Your task to perform on an android device: Search for sony triple a on newegg.com, select the first entry, add it to the cart, then select checkout. Image 0: 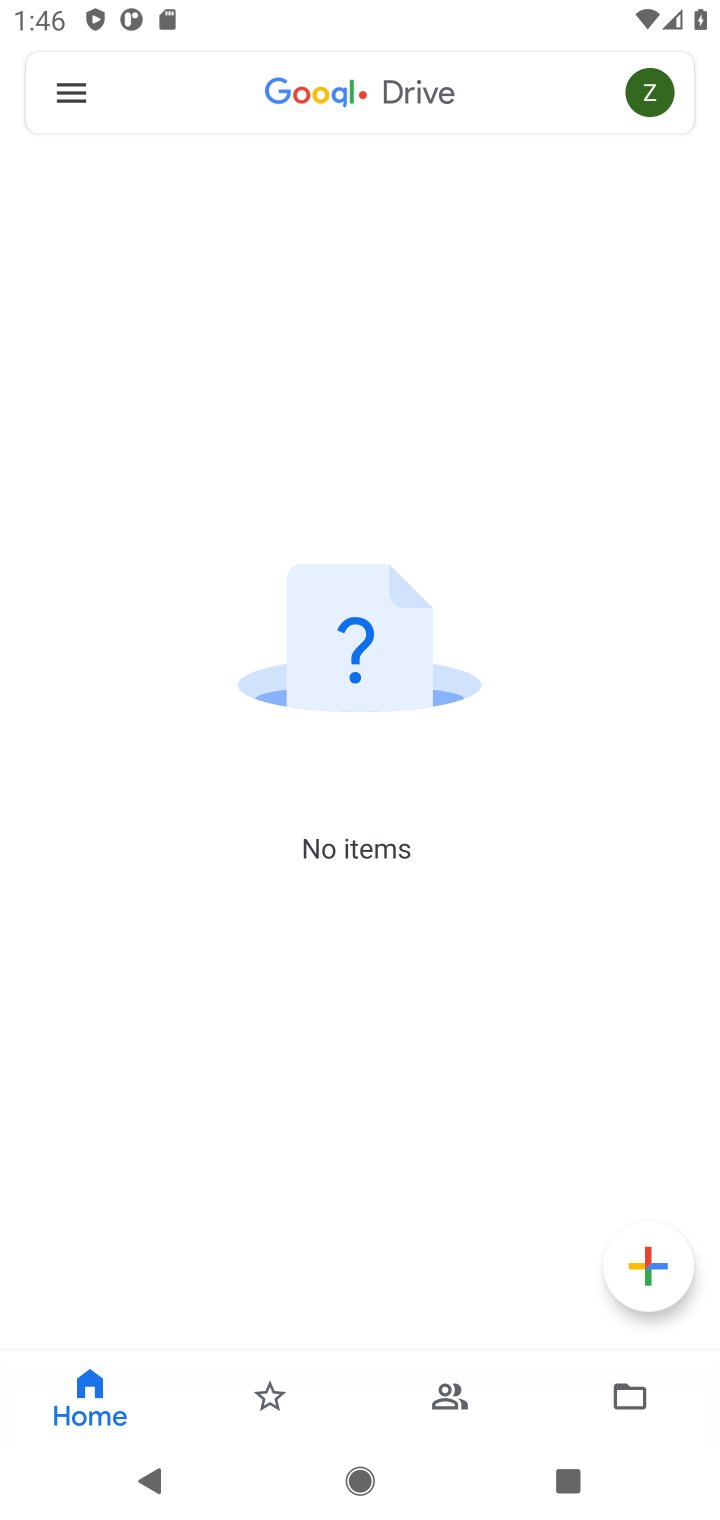
Step 0: press home button
Your task to perform on an android device: Search for sony triple a on newegg.com, select the first entry, add it to the cart, then select checkout. Image 1: 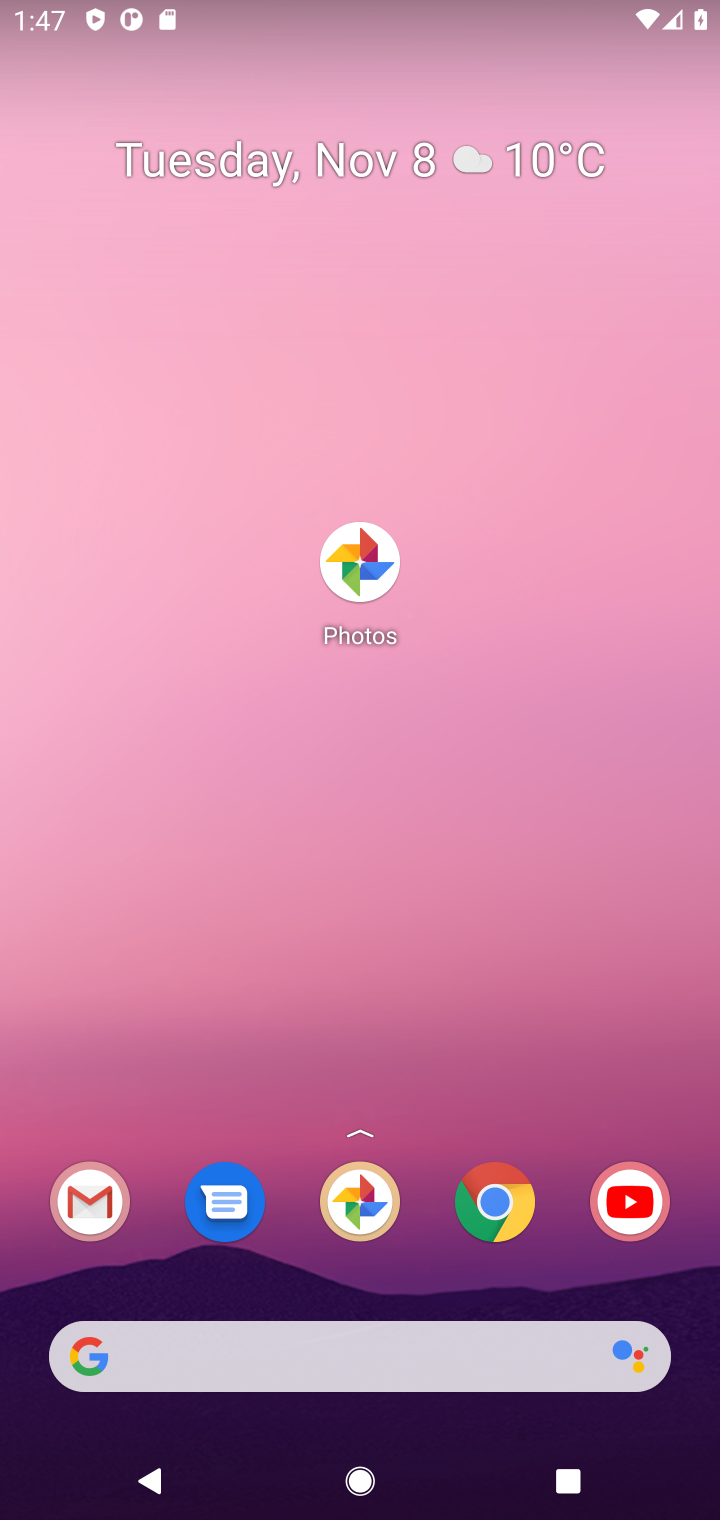
Step 1: drag from (485, 1242) to (467, 130)
Your task to perform on an android device: Search for sony triple a on newegg.com, select the first entry, add it to the cart, then select checkout. Image 2: 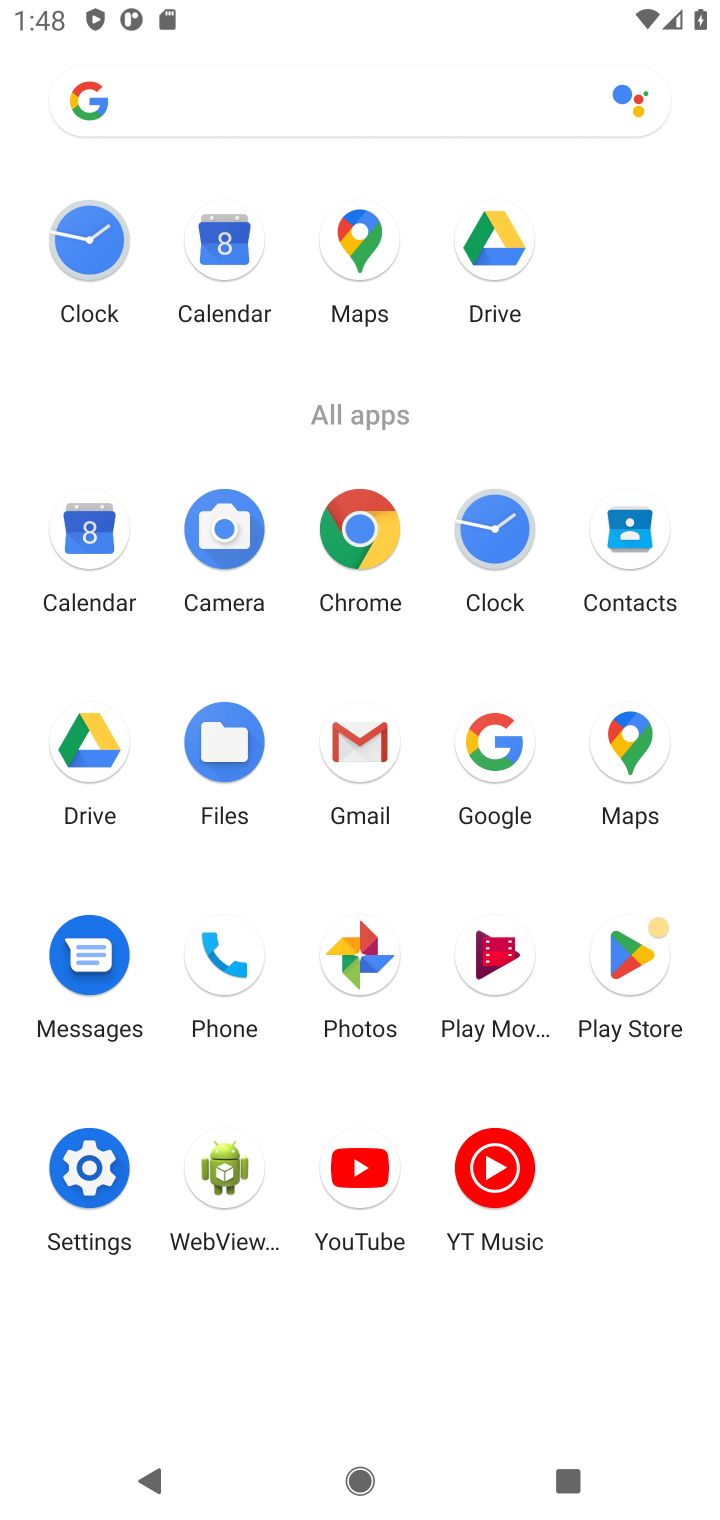
Step 2: click (498, 742)
Your task to perform on an android device: Search for sony triple a on newegg.com, select the first entry, add it to the cart, then select checkout. Image 3: 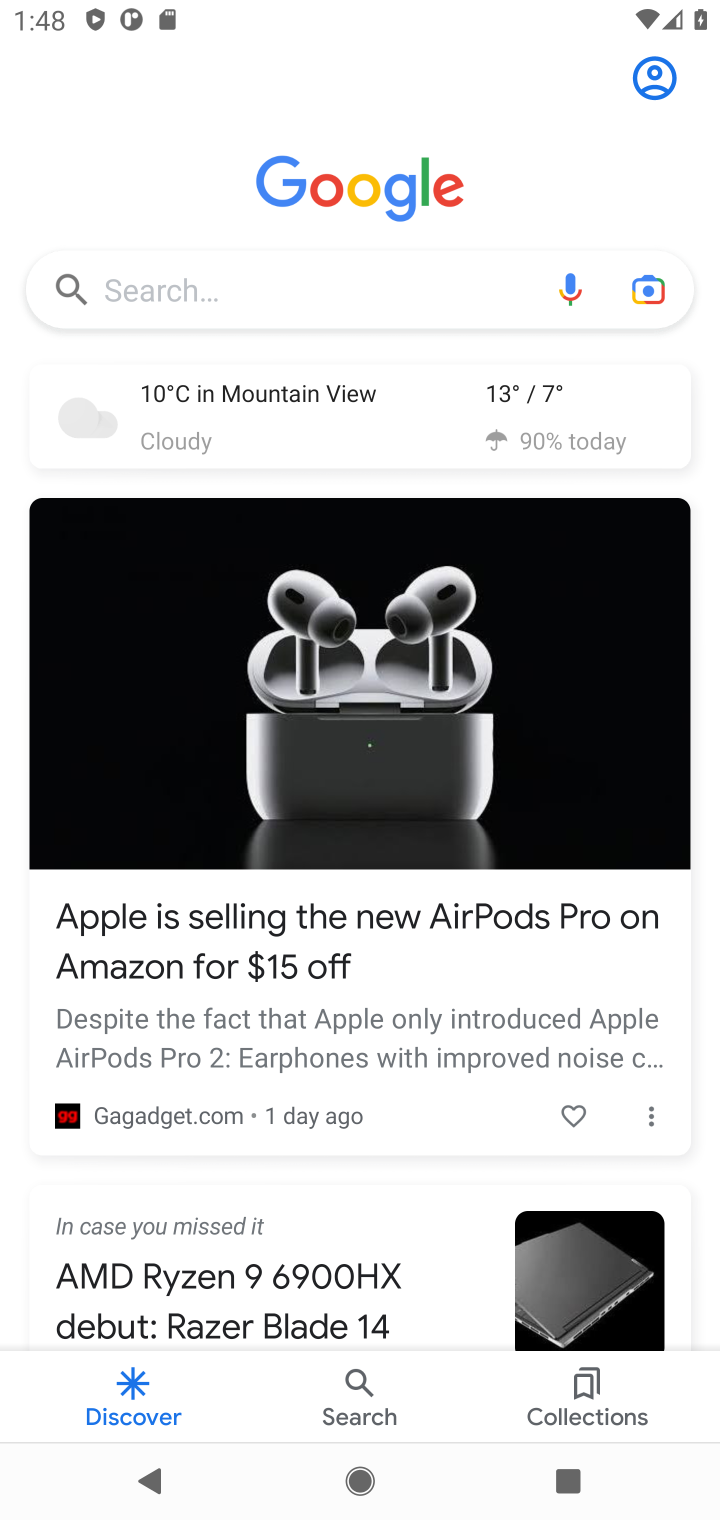
Step 3: click (288, 304)
Your task to perform on an android device: Search for sony triple a on newegg.com, select the first entry, add it to the cart, then select checkout. Image 4: 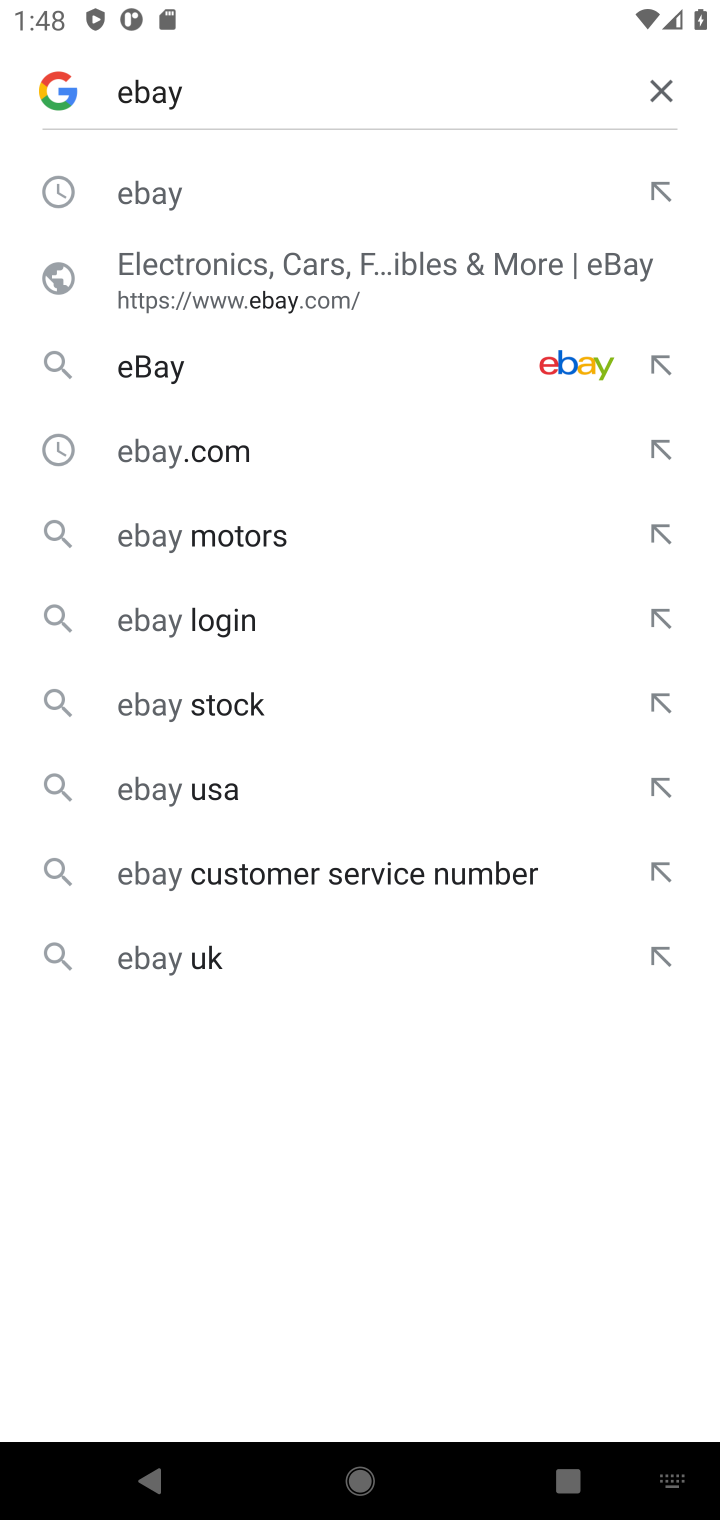
Step 4: click (661, 116)
Your task to perform on an android device: Search for sony triple a on newegg.com, select the first entry, add it to the cart, then select checkout. Image 5: 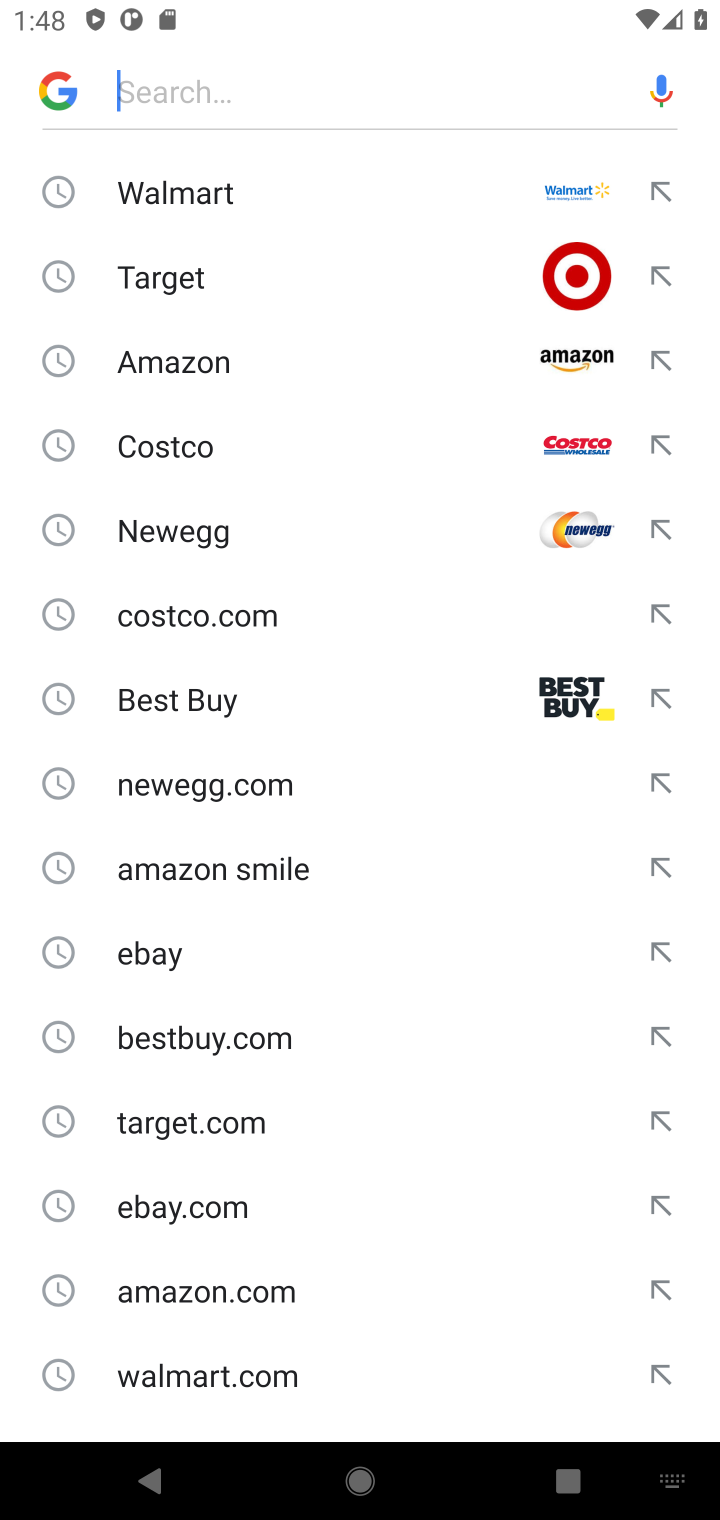
Step 5: type "newegg.com"
Your task to perform on an android device: Search for sony triple a on newegg.com, select the first entry, add it to the cart, then select checkout. Image 6: 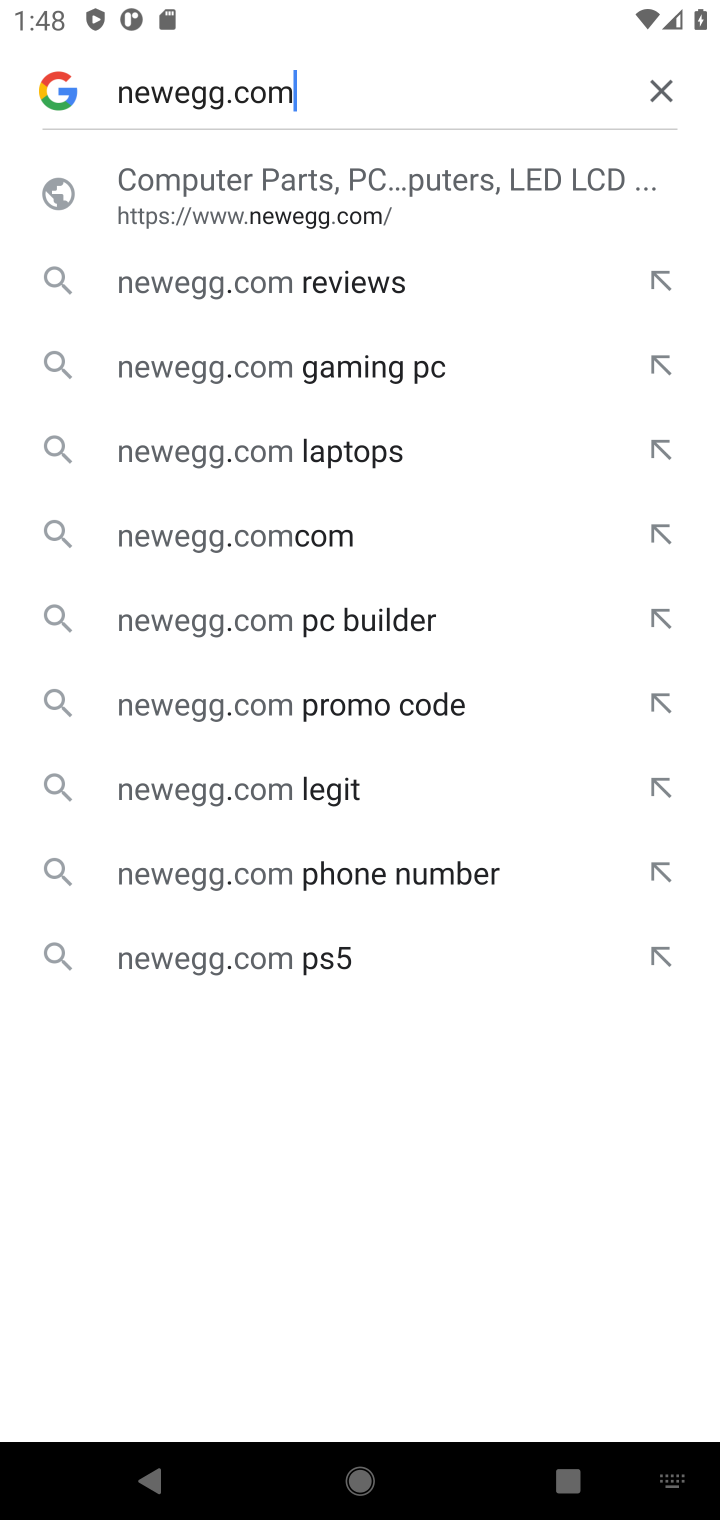
Step 6: click (458, 194)
Your task to perform on an android device: Search for sony triple a on newegg.com, select the first entry, add it to the cart, then select checkout. Image 7: 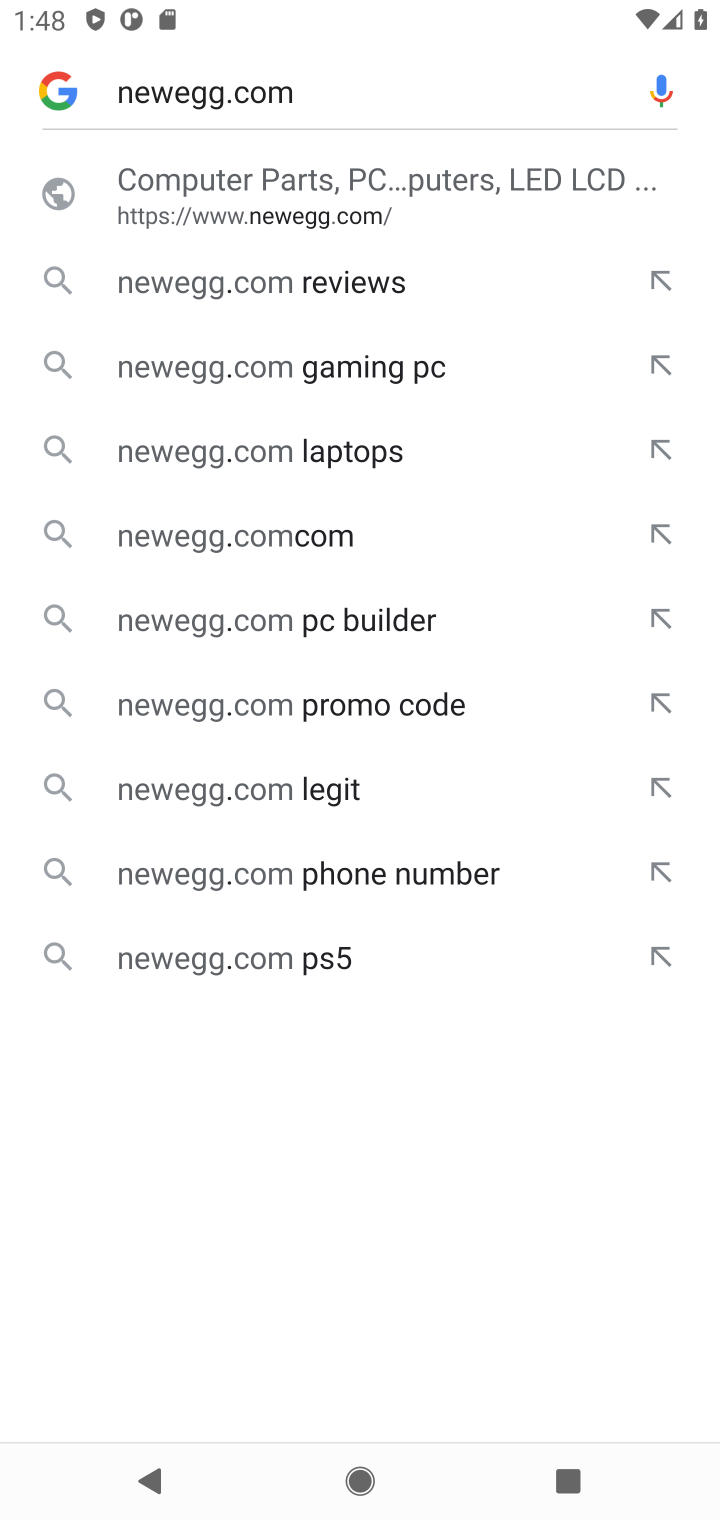
Step 7: click (458, 194)
Your task to perform on an android device: Search for sony triple a on newegg.com, select the first entry, add it to the cart, then select checkout. Image 8: 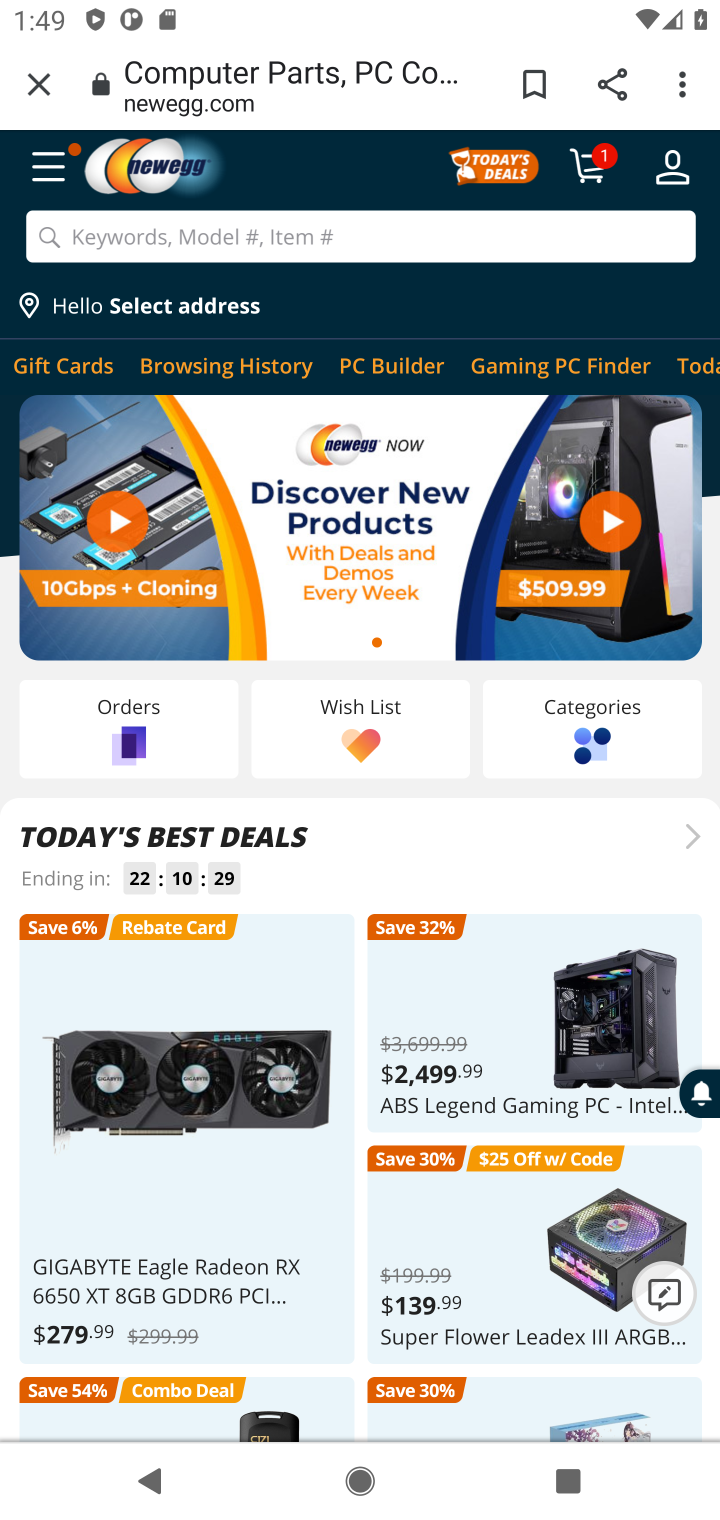
Step 8: click (149, 254)
Your task to perform on an android device: Search for sony triple a on newegg.com, select the first entry, add it to the cart, then select checkout. Image 9: 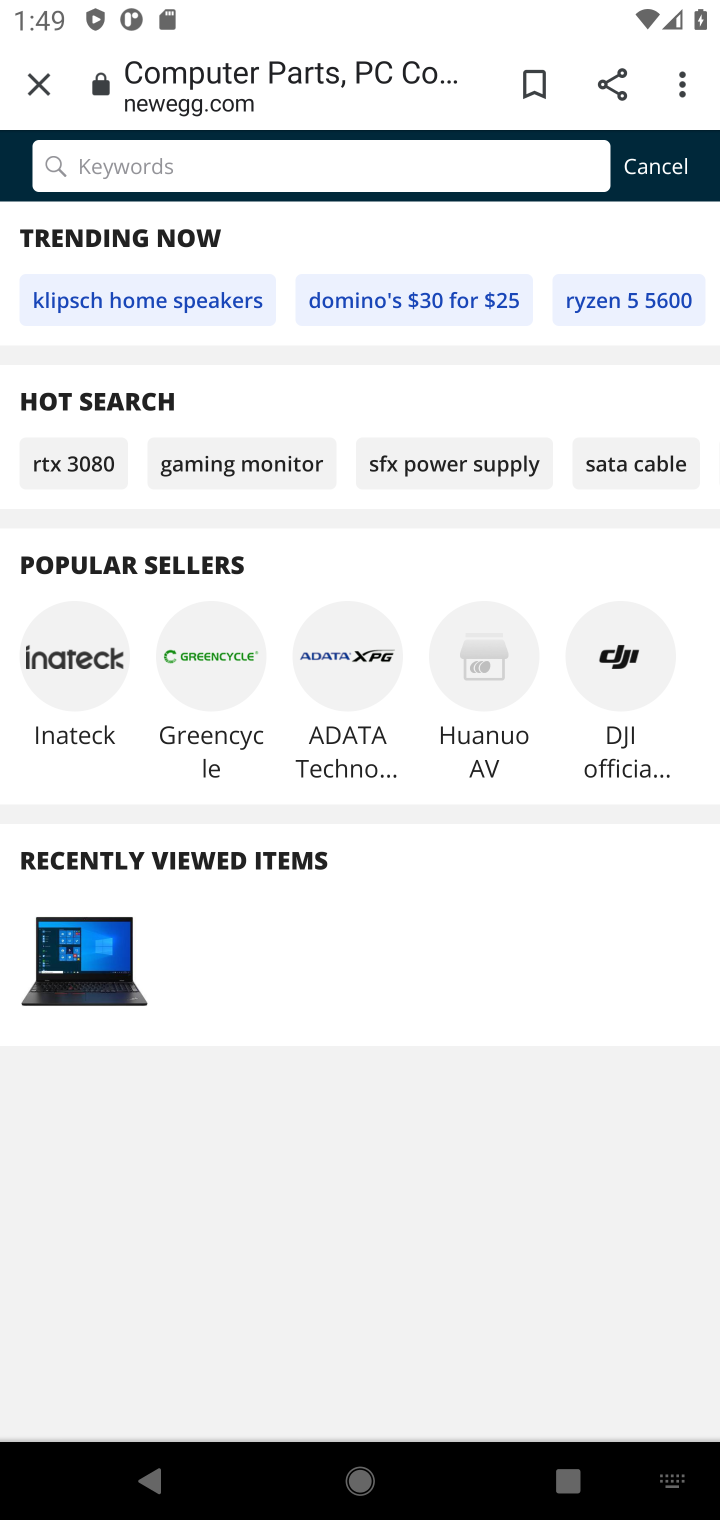
Step 9: type "sony triple A"
Your task to perform on an android device: Search for sony triple a on newegg.com, select the first entry, add it to the cart, then select checkout. Image 10: 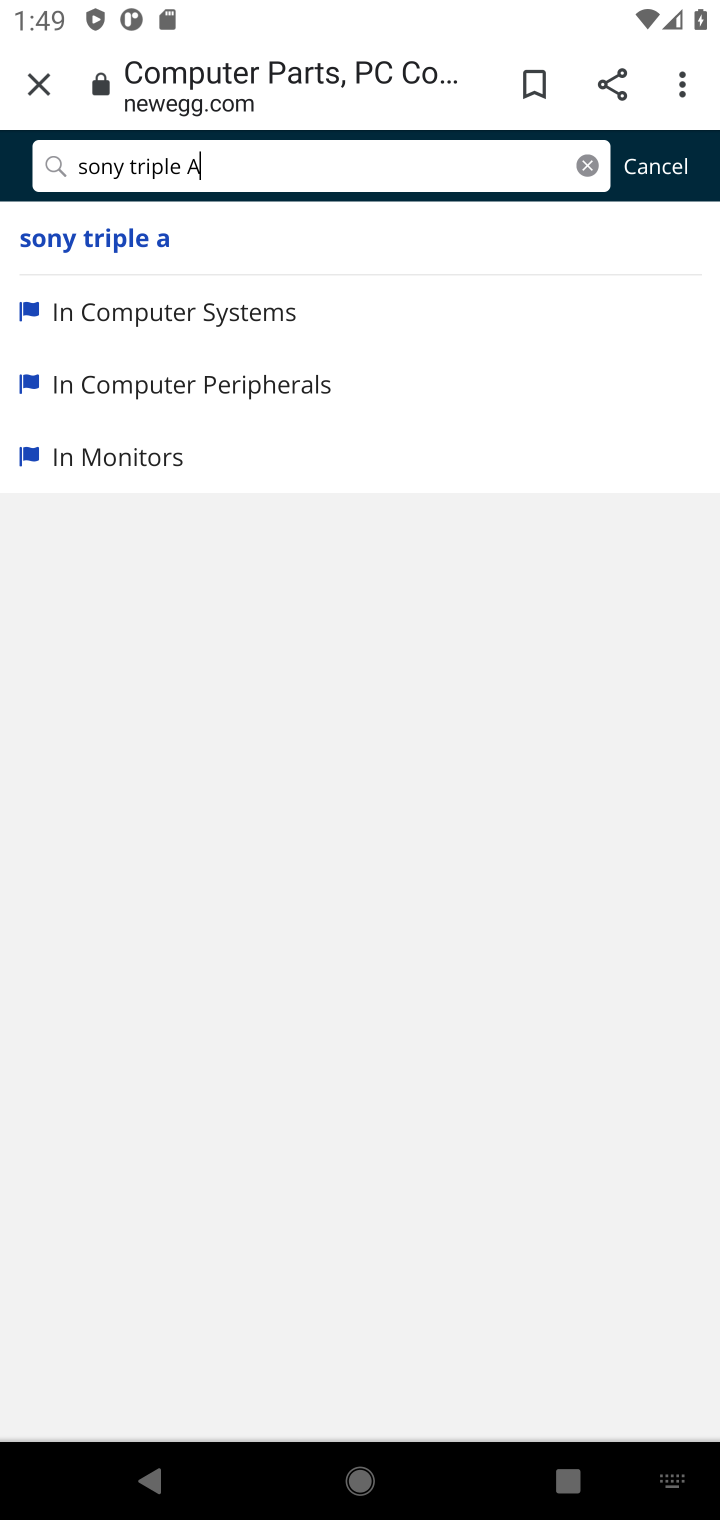
Step 10: click (268, 241)
Your task to perform on an android device: Search for sony triple a on newegg.com, select the first entry, add it to the cart, then select checkout. Image 11: 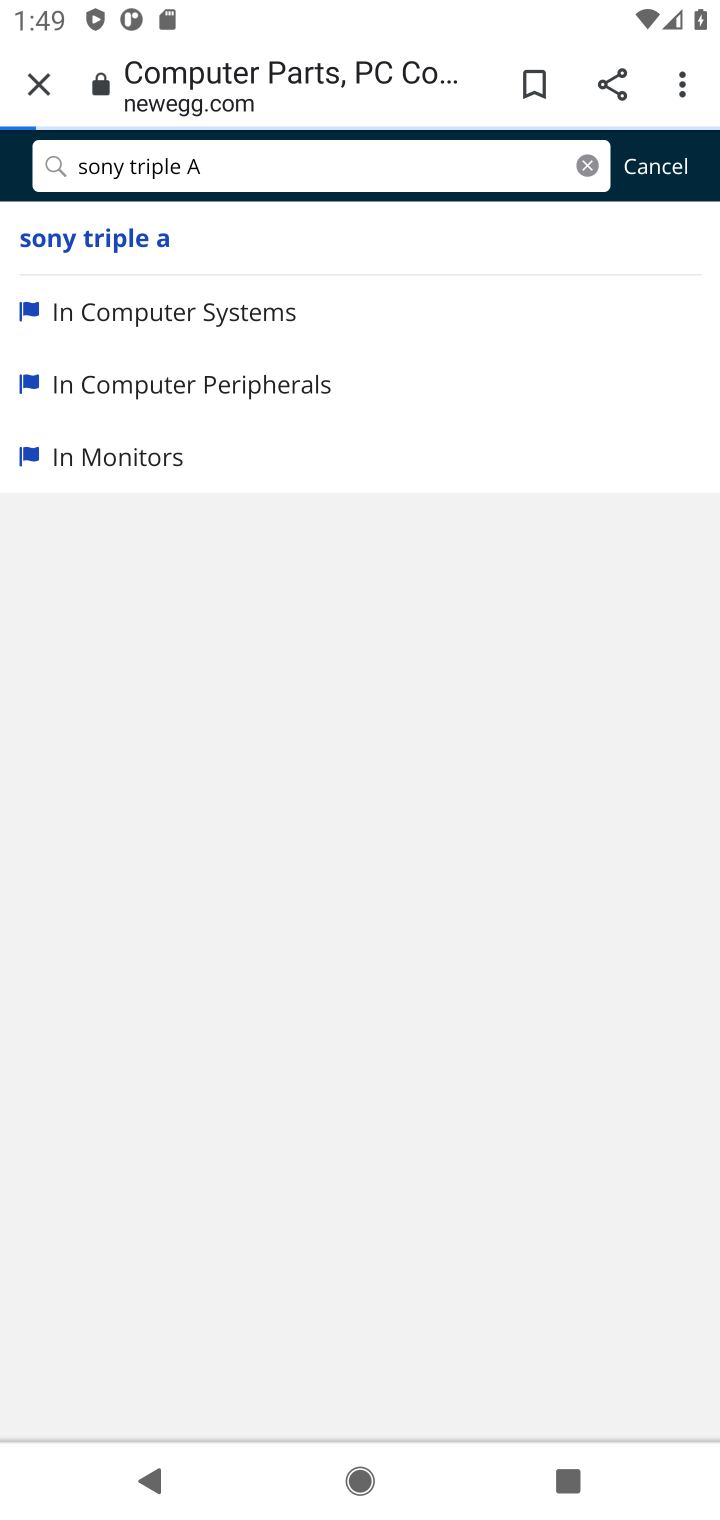
Step 11: click (137, 245)
Your task to perform on an android device: Search for sony triple a on newegg.com, select the first entry, add it to the cart, then select checkout. Image 12: 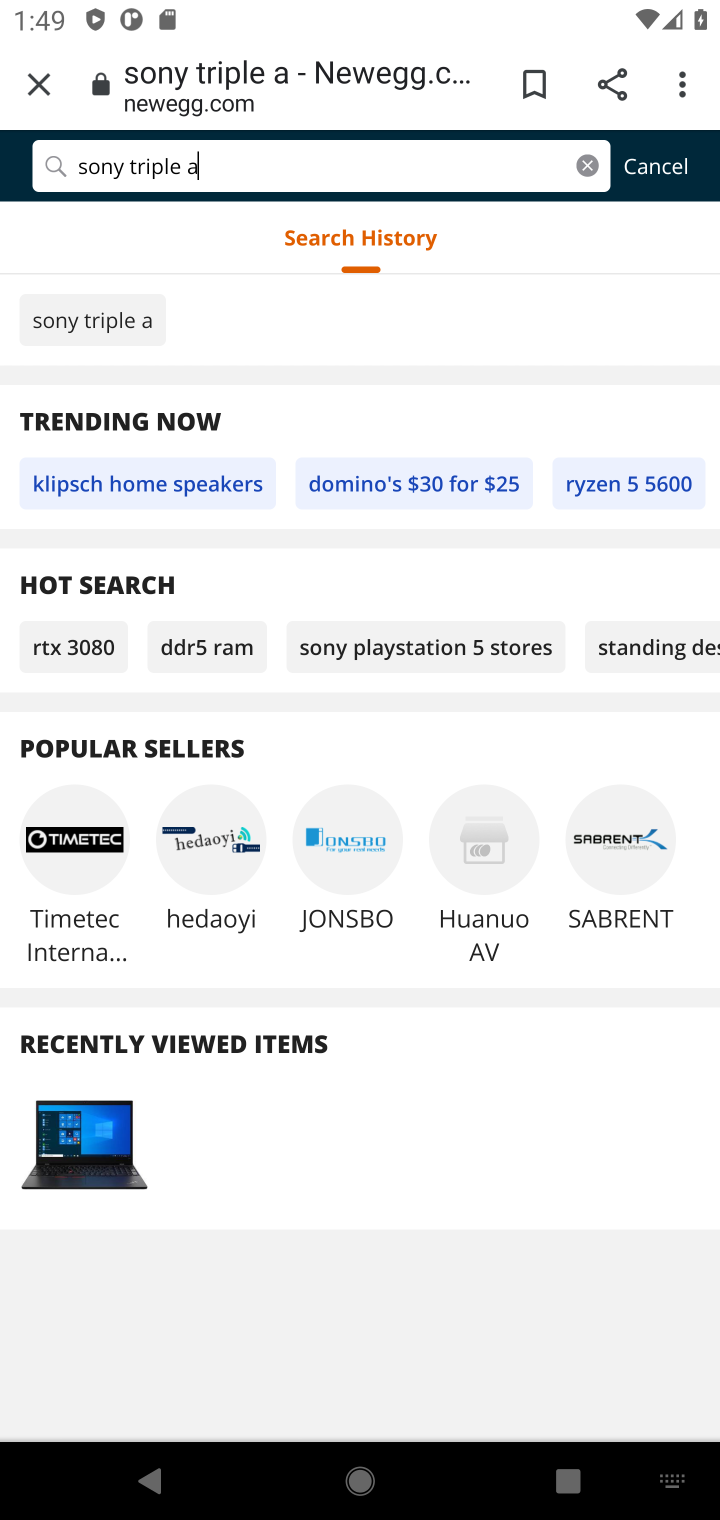
Step 12: task complete